Your task to perform on an android device: Toggle the flashlight Image 0: 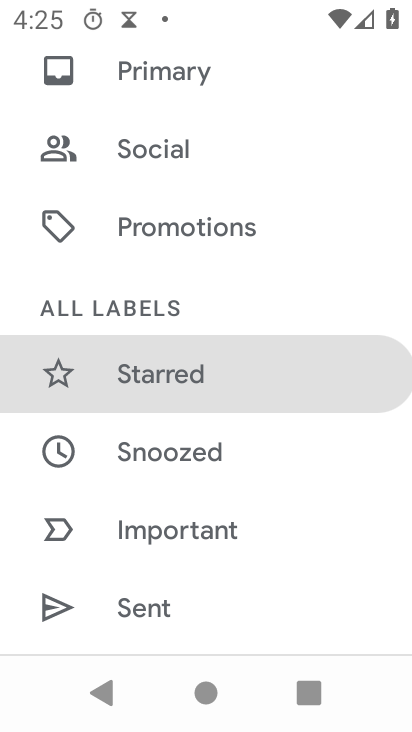
Step 0: press home button
Your task to perform on an android device: Toggle the flashlight Image 1: 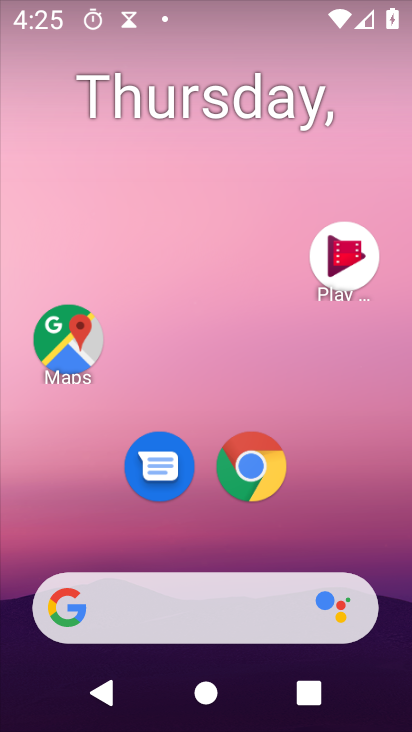
Step 1: drag from (283, 571) to (275, 1)
Your task to perform on an android device: Toggle the flashlight Image 2: 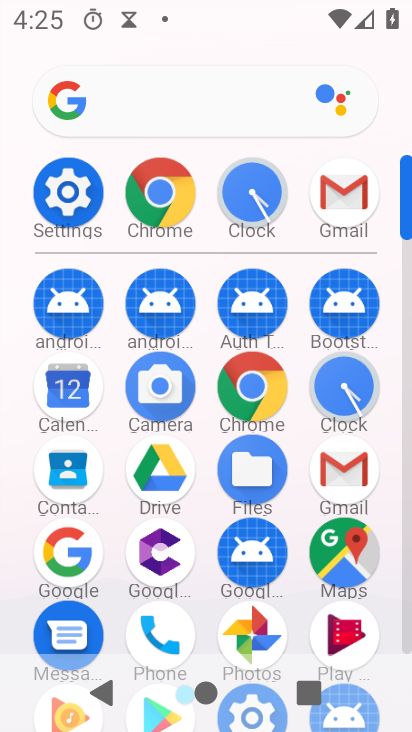
Step 2: click (71, 200)
Your task to perform on an android device: Toggle the flashlight Image 3: 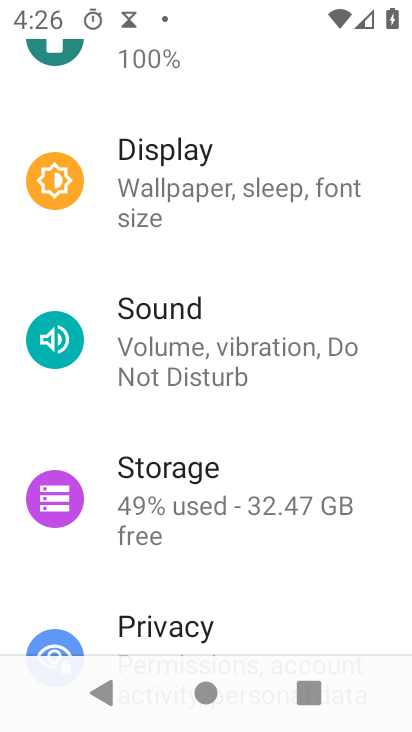
Step 3: task complete